Your task to perform on an android device: set default search engine in the chrome app Image 0: 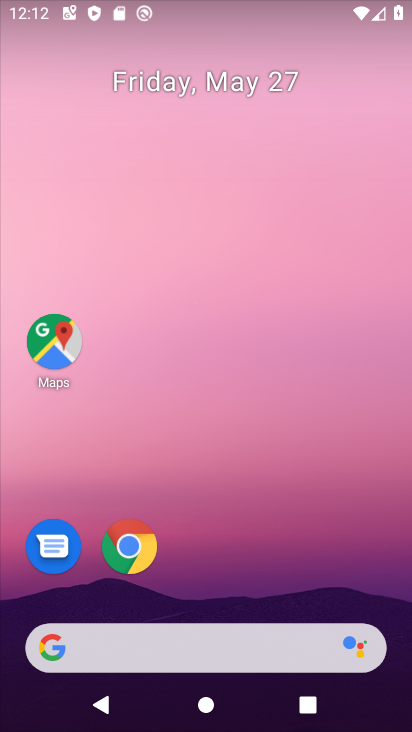
Step 0: click (133, 550)
Your task to perform on an android device: set default search engine in the chrome app Image 1: 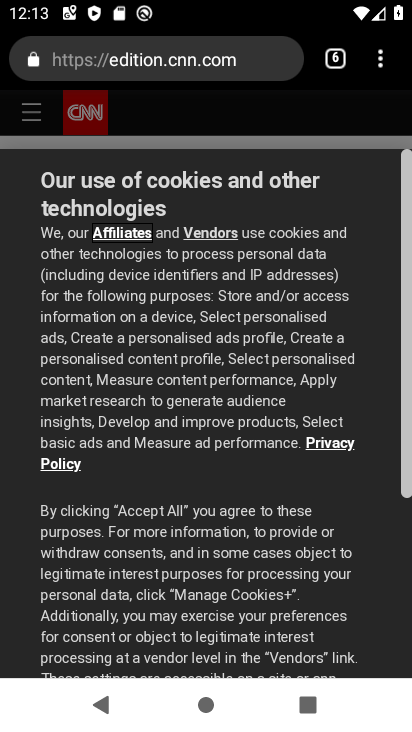
Step 1: click (381, 65)
Your task to perform on an android device: set default search engine in the chrome app Image 2: 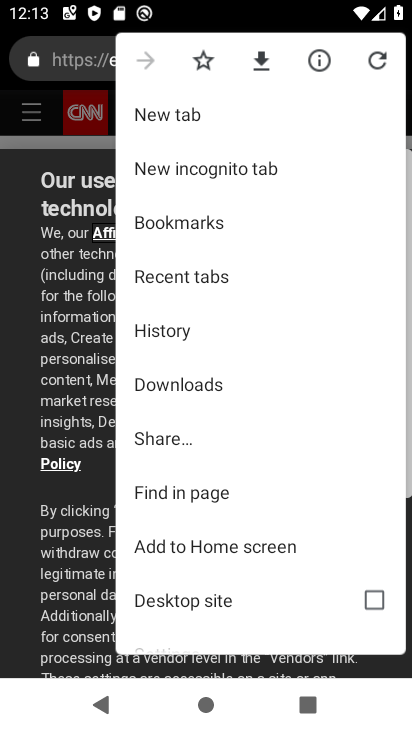
Step 2: drag from (226, 588) to (160, 259)
Your task to perform on an android device: set default search engine in the chrome app Image 3: 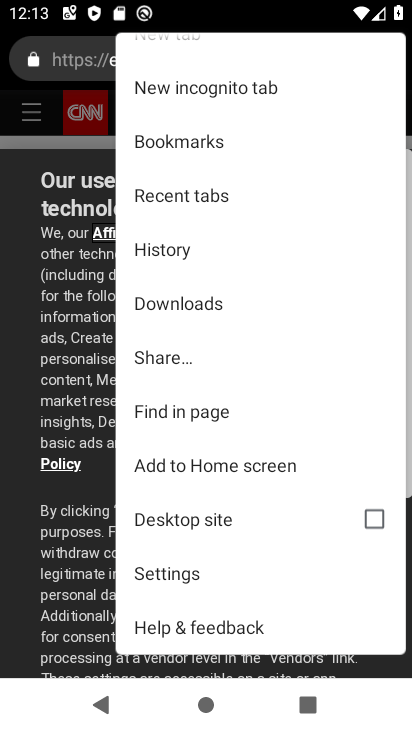
Step 3: click (174, 581)
Your task to perform on an android device: set default search engine in the chrome app Image 4: 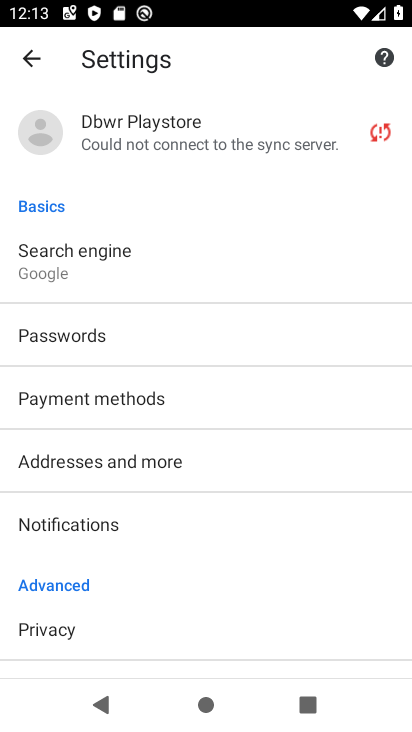
Step 4: click (83, 252)
Your task to perform on an android device: set default search engine in the chrome app Image 5: 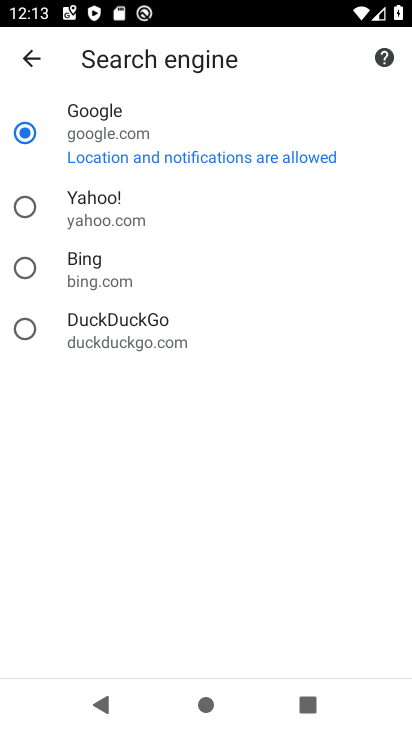
Step 5: task complete